Your task to perform on an android device: stop showing notifications on the lock screen Image 0: 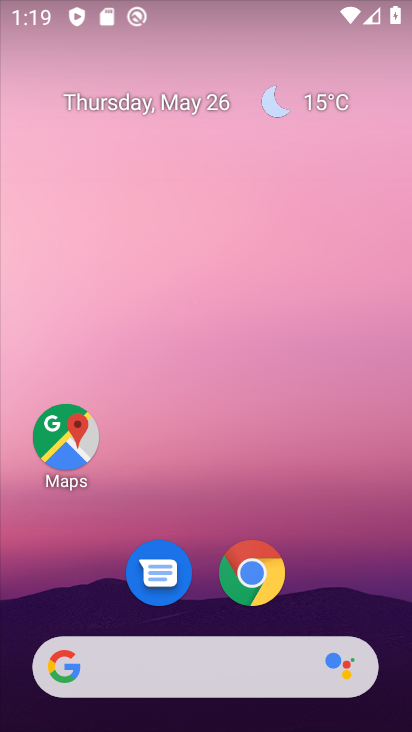
Step 0: drag from (337, 603) to (335, 199)
Your task to perform on an android device: stop showing notifications on the lock screen Image 1: 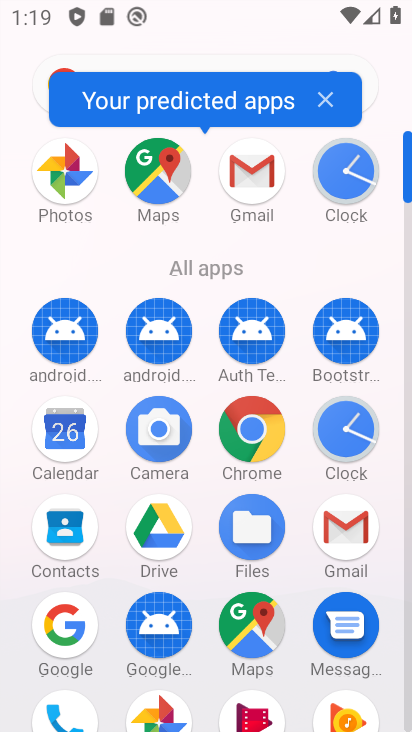
Step 1: click (405, 656)
Your task to perform on an android device: stop showing notifications on the lock screen Image 2: 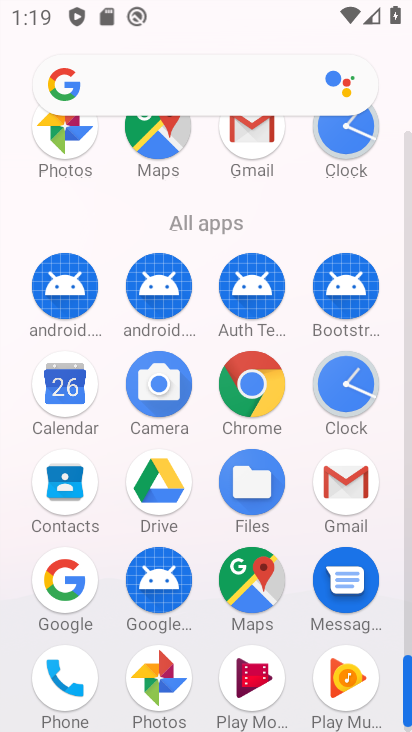
Step 2: drag from (392, 608) to (403, 421)
Your task to perform on an android device: stop showing notifications on the lock screen Image 3: 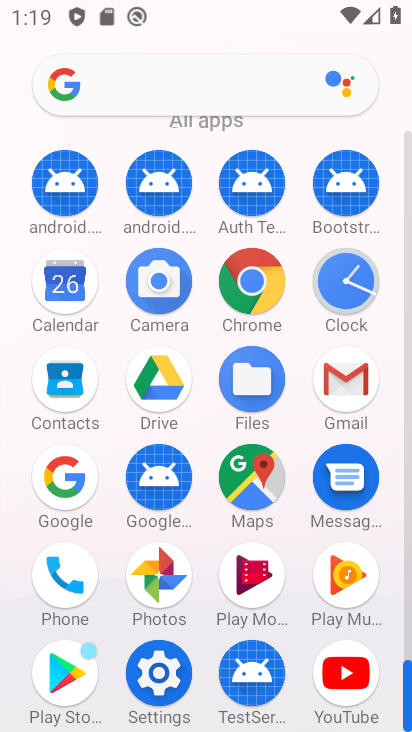
Step 3: click (154, 677)
Your task to perform on an android device: stop showing notifications on the lock screen Image 4: 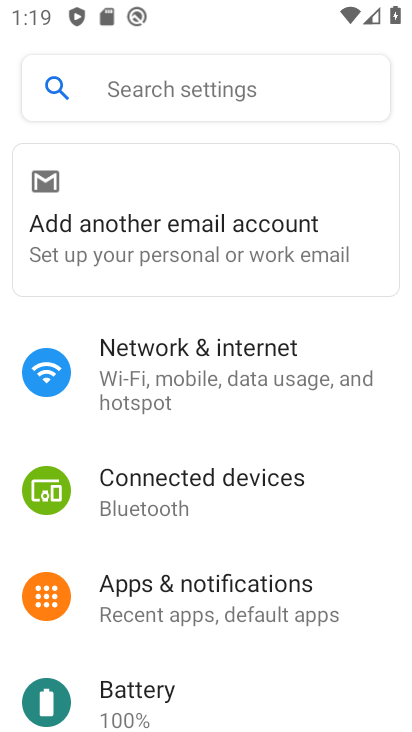
Step 4: click (255, 587)
Your task to perform on an android device: stop showing notifications on the lock screen Image 5: 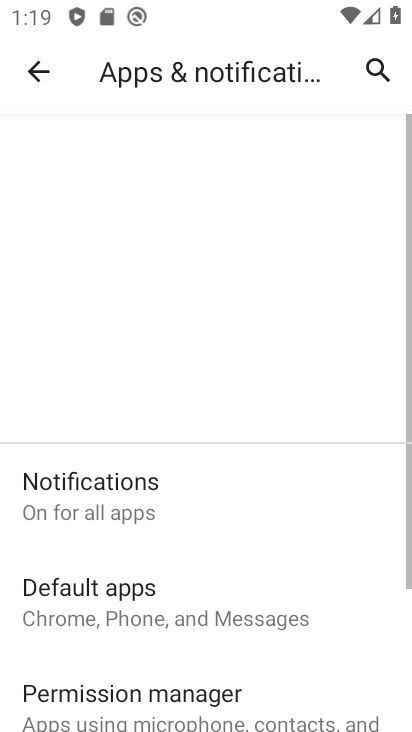
Step 5: click (209, 486)
Your task to perform on an android device: stop showing notifications on the lock screen Image 6: 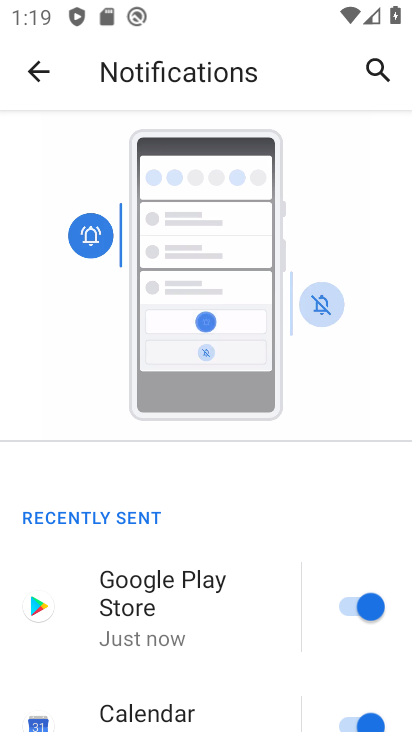
Step 6: drag from (229, 663) to (239, 257)
Your task to perform on an android device: stop showing notifications on the lock screen Image 7: 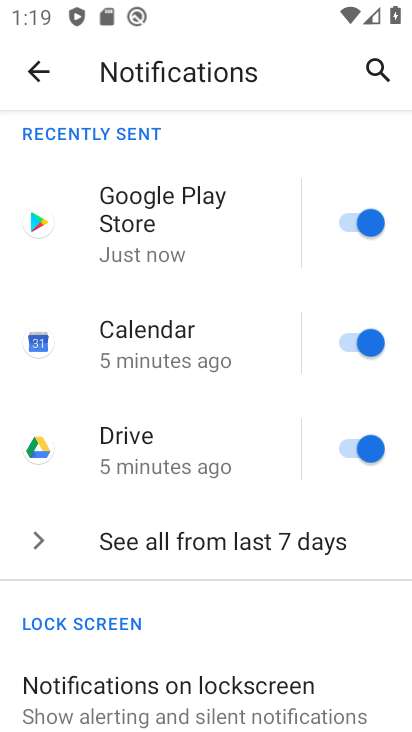
Step 7: drag from (244, 639) to (227, 335)
Your task to perform on an android device: stop showing notifications on the lock screen Image 8: 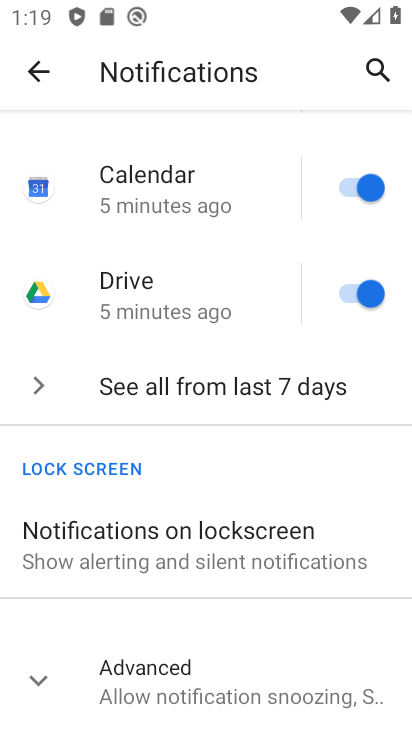
Step 8: click (245, 538)
Your task to perform on an android device: stop showing notifications on the lock screen Image 9: 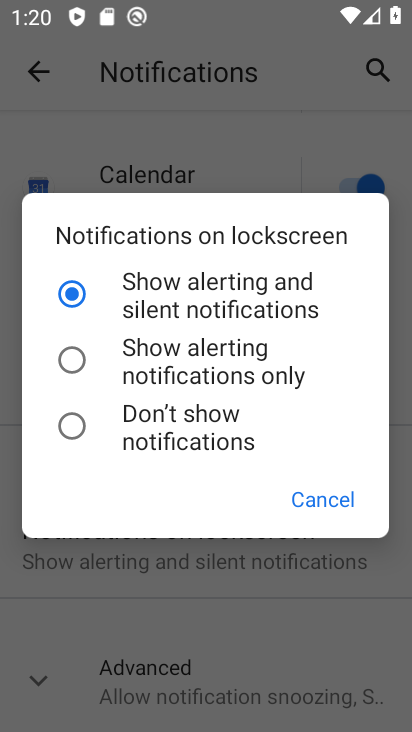
Step 9: click (191, 441)
Your task to perform on an android device: stop showing notifications on the lock screen Image 10: 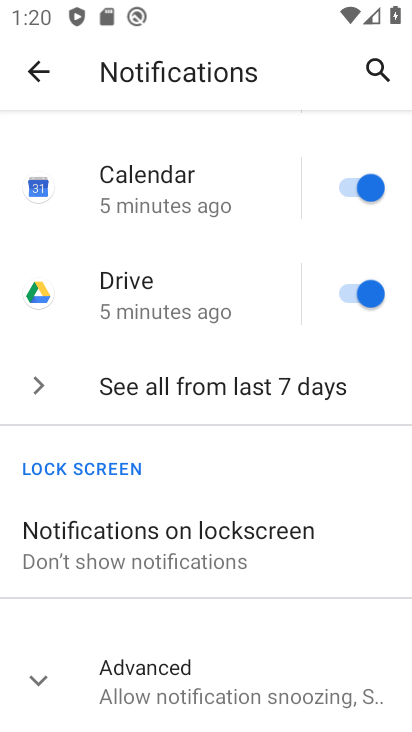
Step 10: task complete